Your task to perform on an android device: Open location settings Image 0: 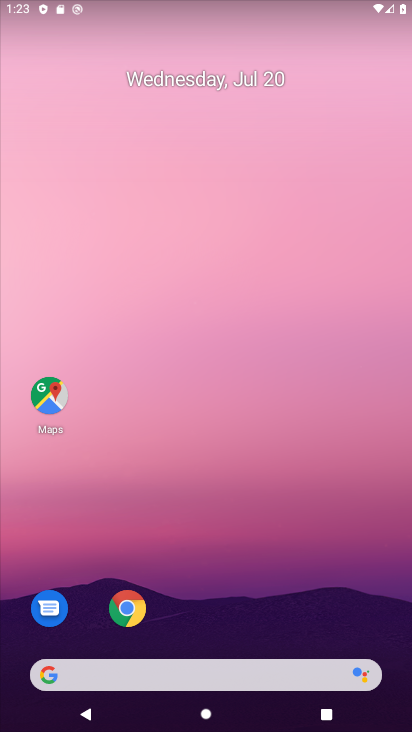
Step 0: drag from (236, 636) to (299, 59)
Your task to perform on an android device: Open location settings Image 1: 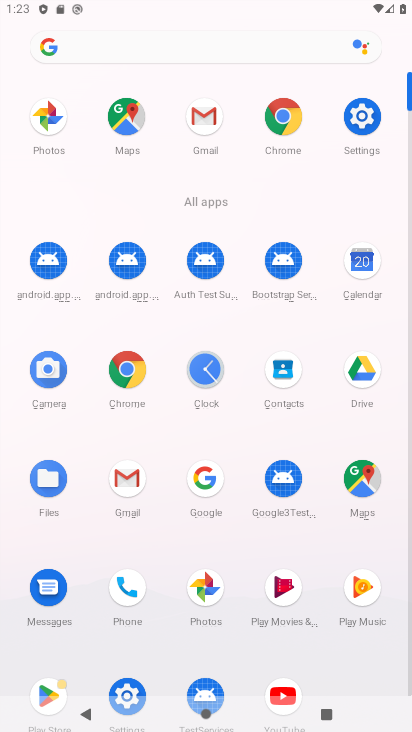
Step 1: click (369, 142)
Your task to perform on an android device: Open location settings Image 2: 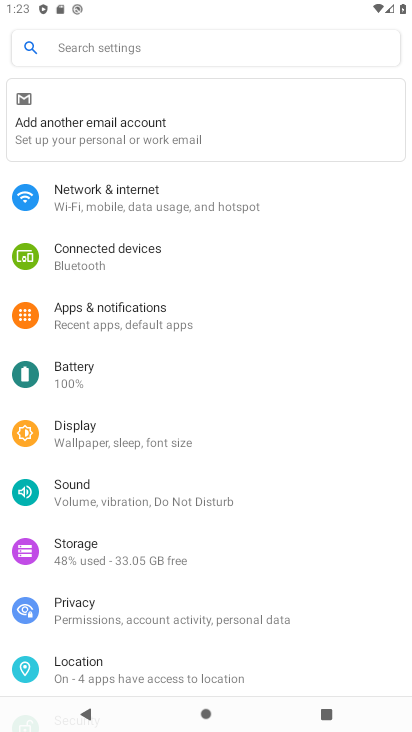
Step 2: click (117, 673)
Your task to perform on an android device: Open location settings Image 3: 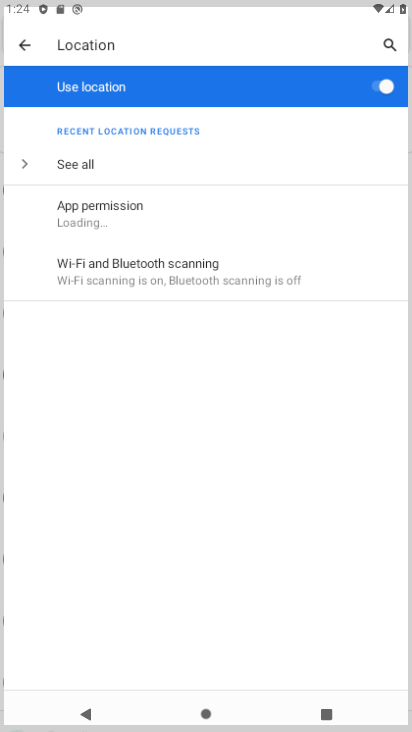
Step 3: task complete